Your task to perform on an android device: Find coffee shops on Maps Image 0: 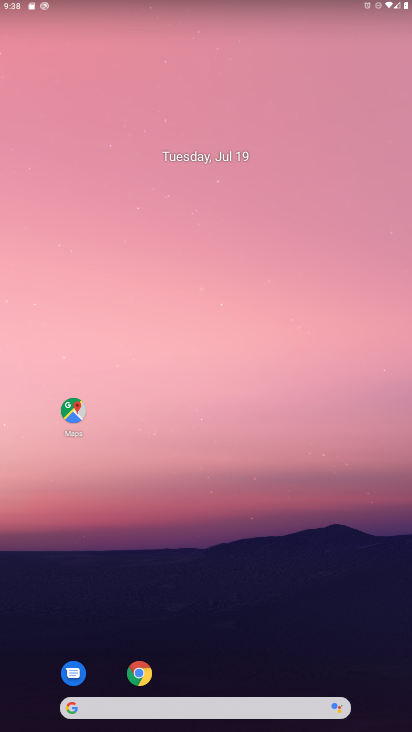
Step 0: click (76, 409)
Your task to perform on an android device: Find coffee shops on Maps Image 1: 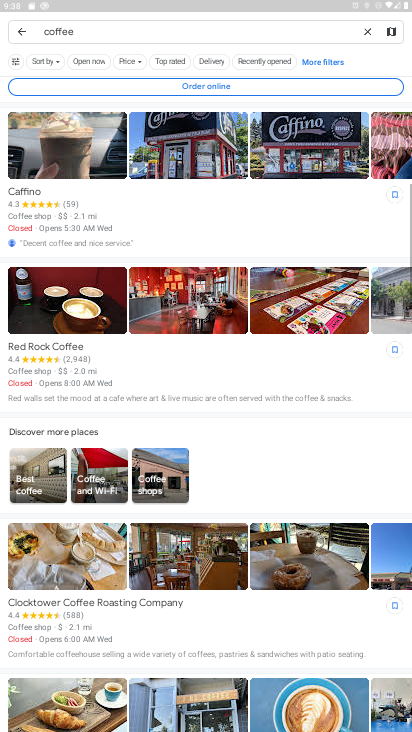
Step 1: press back button
Your task to perform on an android device: Find coffee shops on Maps Image 2: 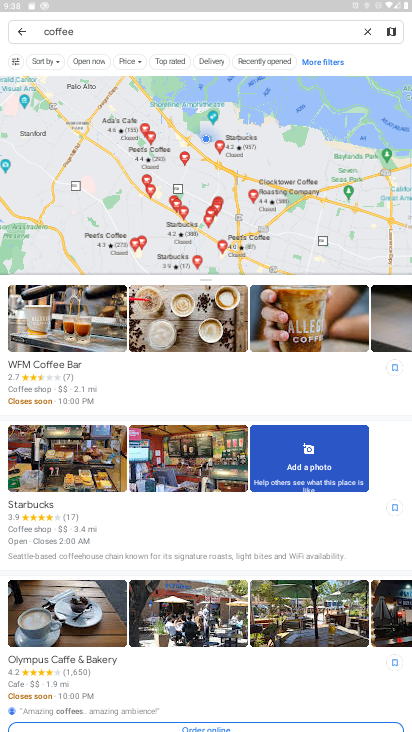
Step 2: click (364, 32)
Your task to perform on an android device: Find coffee shops on Maps Image 3: 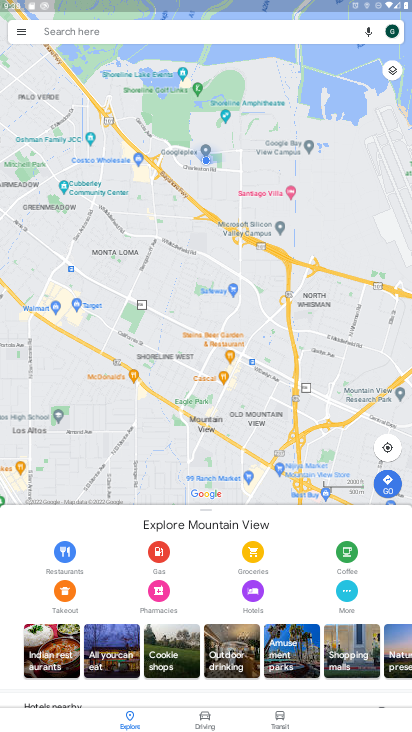
Step 3: click (17, 33)
Your task to perform on an android device: Find coffee shops on Maps Image 4: 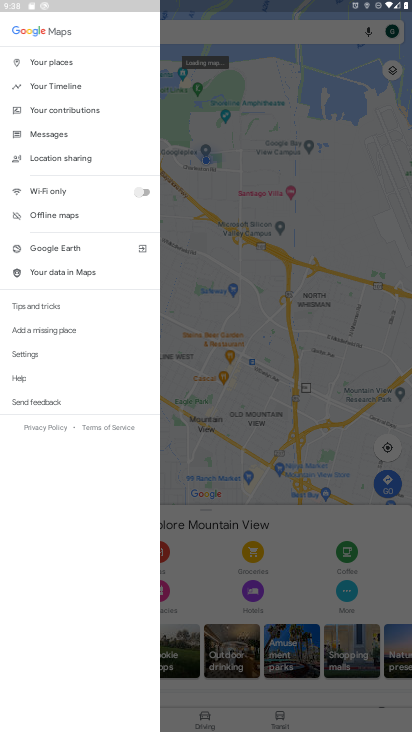
Step 4: click (304, 96)
Your task to perform on an android device: Find coffee shops on Maps Image 5: 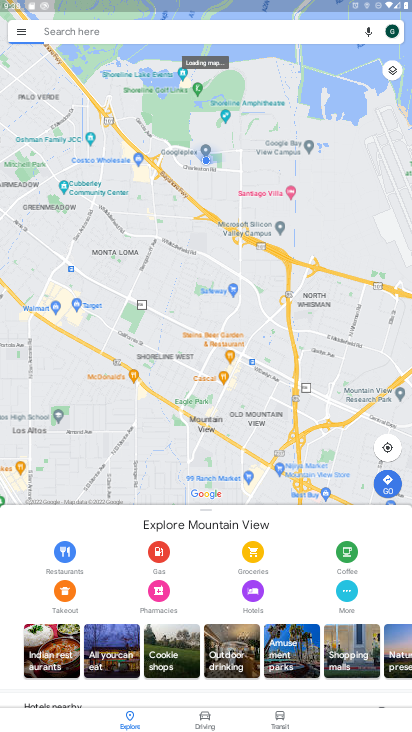
Step 5: click (158, 23)
Your task to perform on an android device: Find coffee shops on Maps Image 6: 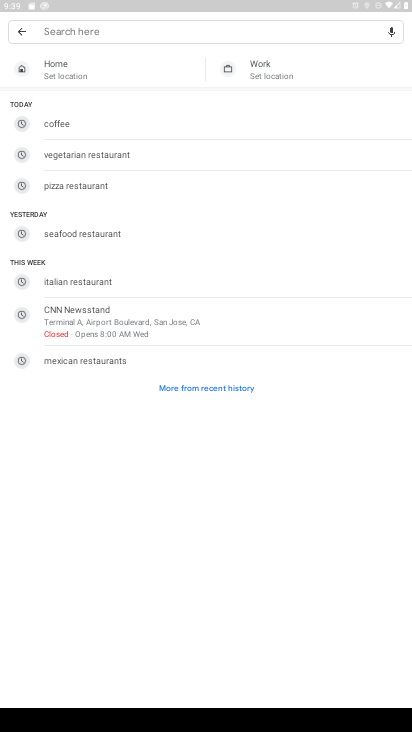
Step 6: type "coffee shop"
Your task to perform on an android device: Find coffee shops on Maps Image 7: 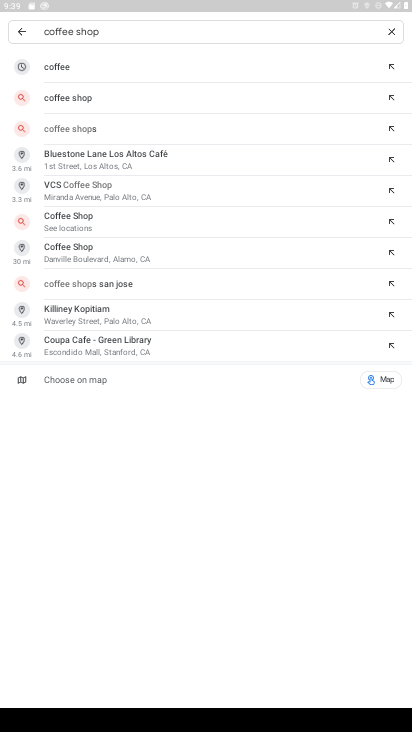
Step 7: click (68, 95)
Your task to perform on an android device: Find coffee shops on Maps Image 8: 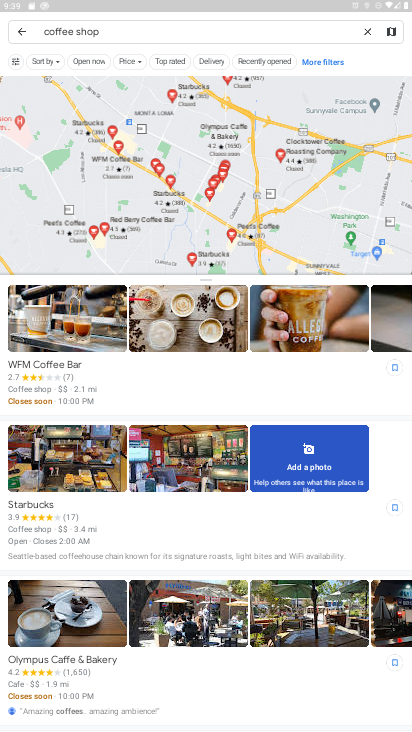
Step 8: task complete